Your task to perform on an android device: Open the calendar app, open the side menu, and click the "Day" option Image 0: 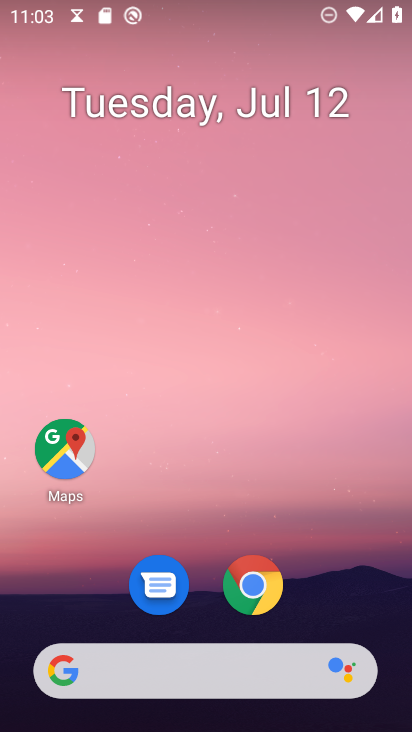
Step 0: press home button
Your task to perform on an android device: Open the calendar app, open the side menu, and click the "Day" option Image 1: 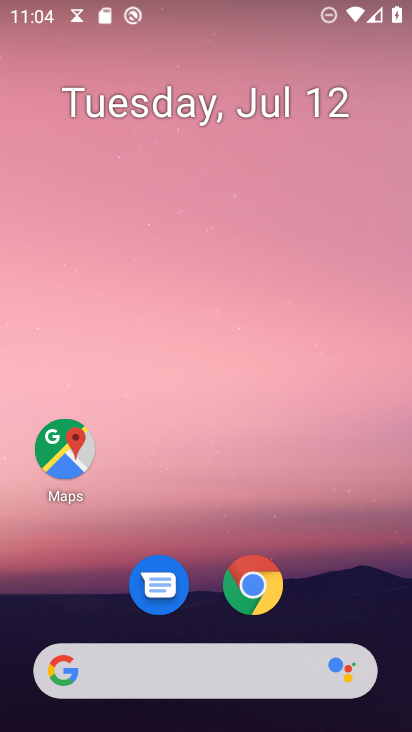
Step 1: drag from (236, 658) to (327, 194)
Your task to perform on an android device: Open the calendar app, open the side menu, and click the "Day" option Image 2: 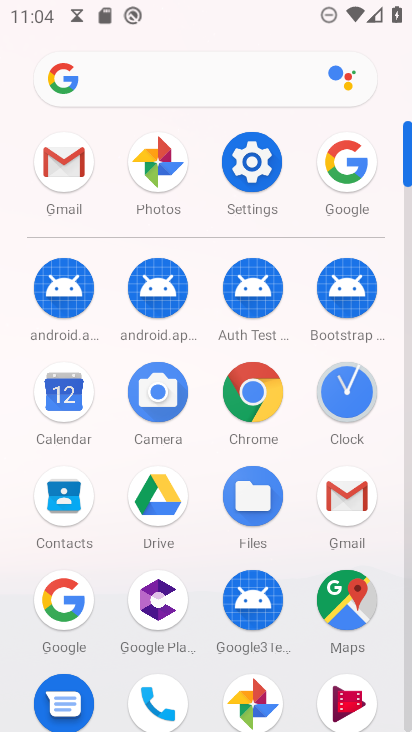
Step 2: click (60, 402)
Your task to perform on an android device: Open the calendar app, open the side menu, and click the "Day" option Image 3: 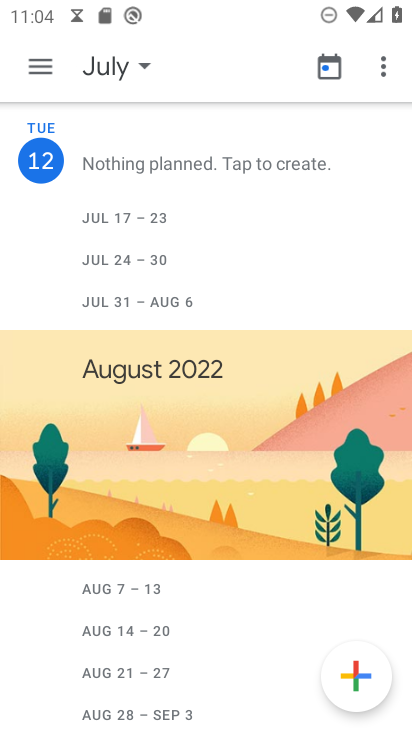
Step 3: click (42, 73)
Your task to perform on an android device: Open the calendar app, open the side menu, and click the "Day" option Image 4: 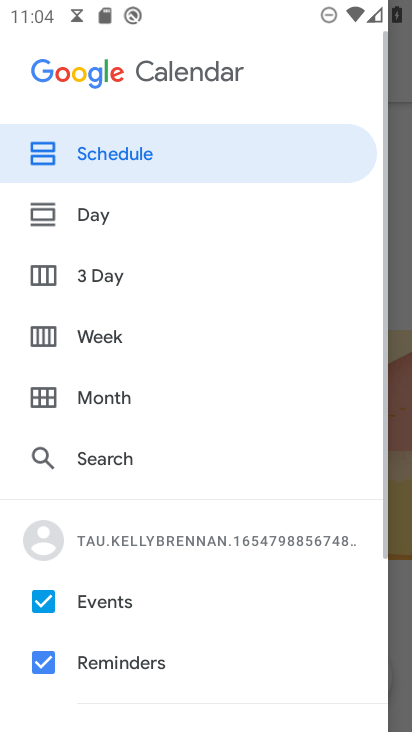
Step 4: click (92, 215)
Your task to perform on an android device: Open the calendar app, open the side menu, and click the "Day" option Image 5: 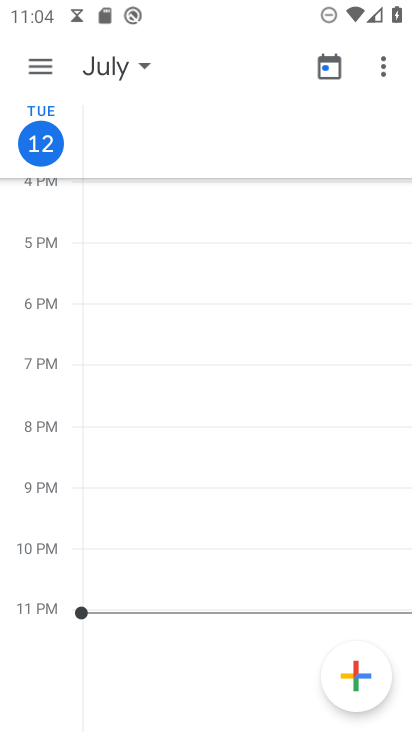
Step 5: task complete